Your task to perform on an android device: Do I have any events today? Image 0: 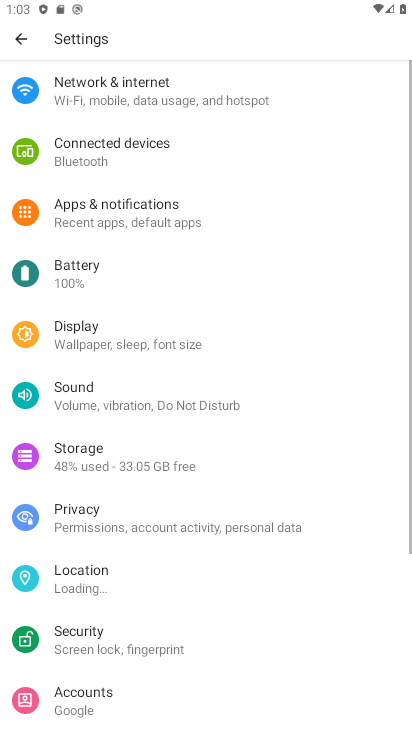
Step 0: press home button
Your task to perform on an android device: Do I have any events today? Image 1: 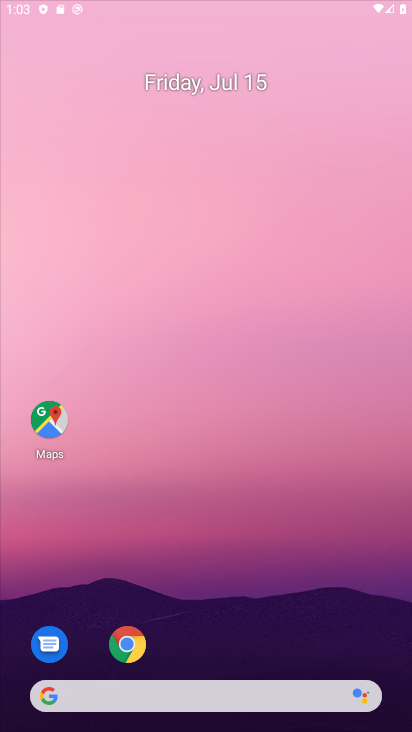
Step 1: drag from (395, 682) to (251, 29)
Your task to perform on an android device: Do I have any events today? Image 2: 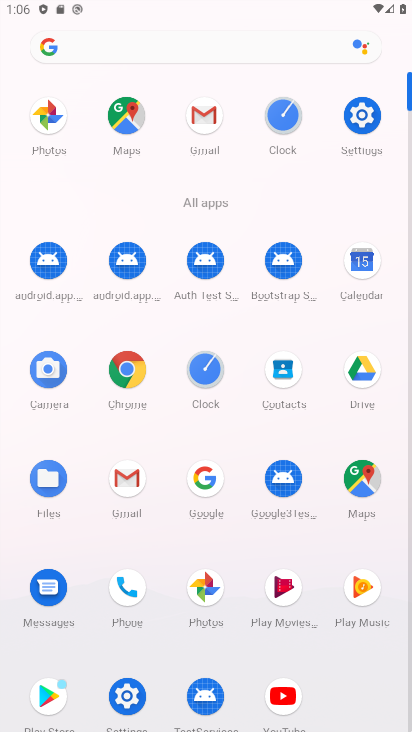
Step 2: click (365, 273)
Your task to perform on an android device: Do I have any events today? Image 3: 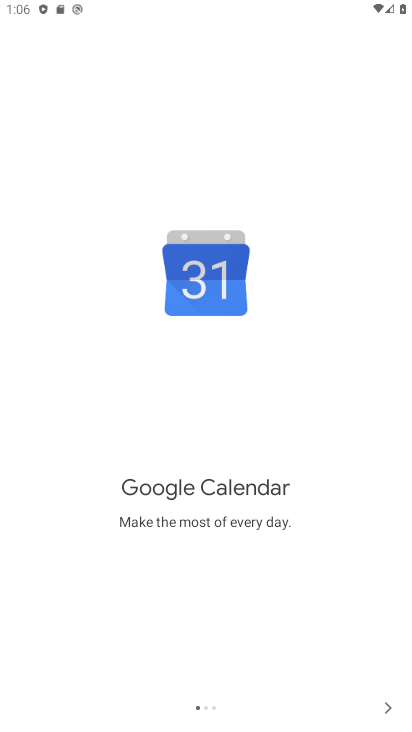
Step 3: click (388, 704)
Your task to perform on an android device: Do I have any events today? Image 4: 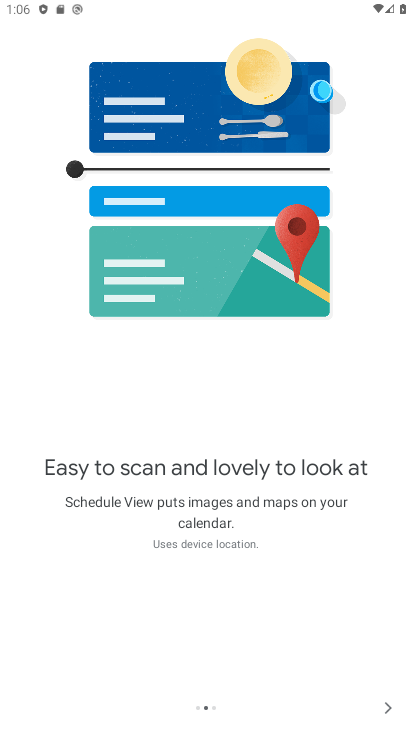
Step 4: click (387, 704)
Your task to perform on an android device: Do I have any events today? Image 5: 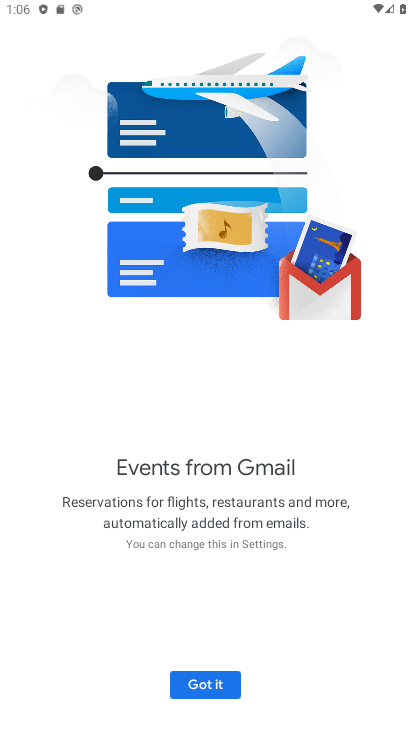
Step 5: click (213, 692)
Your task to perform on an android device: Do I have any events today? Image 6: 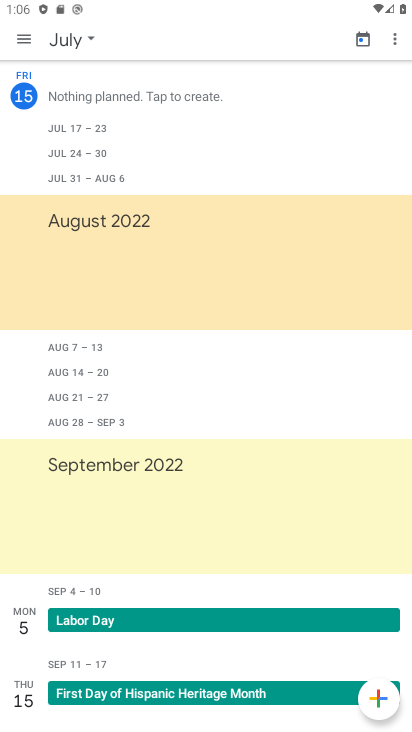
Step 6: task complete